Your task to perform on an android device: visit the assistant section in the google photos Image 0: 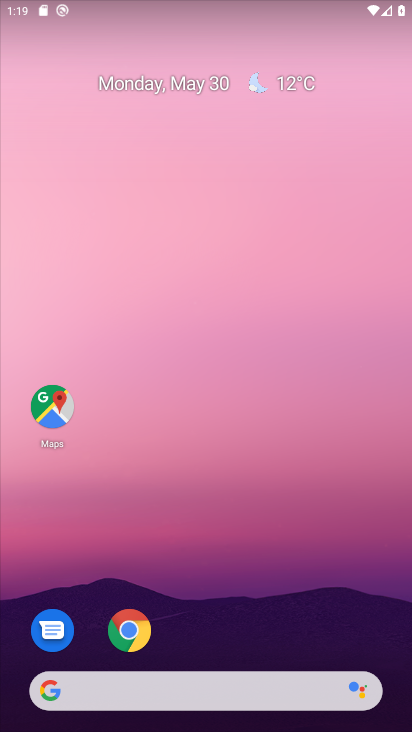
Step 0: drag from (216, 677) to (250, 88)
Your task to perform on an android device: visit the assistant section in the google photos Image 1: 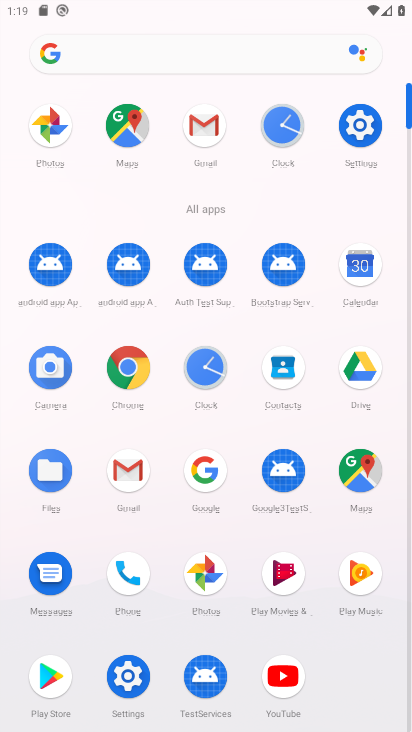
Step 1: click (193, 589)
Your task to perform on an android device: visit the assistant section in the google photos Image 2: 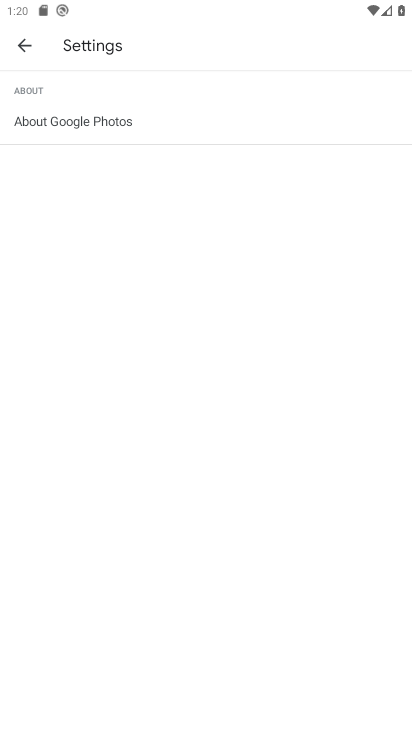
Step 2: click (22, 48)
Your task to perform on an android device: visit the assistant section in the google photos Image 3: 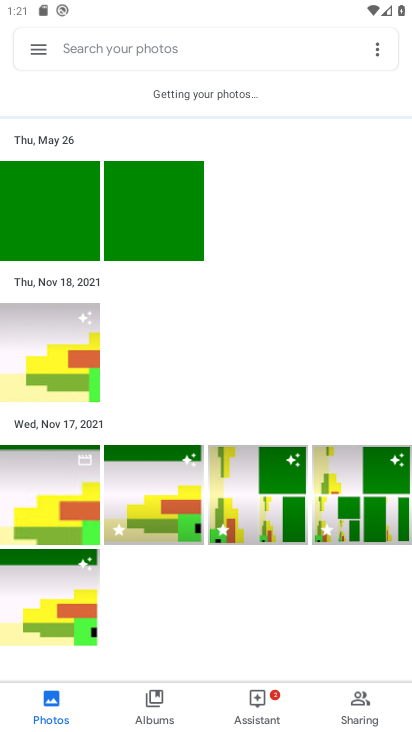
Step 3: click (264, 686)
Your task to perform on an android device: visit the assistant section in the google photos Image 4: 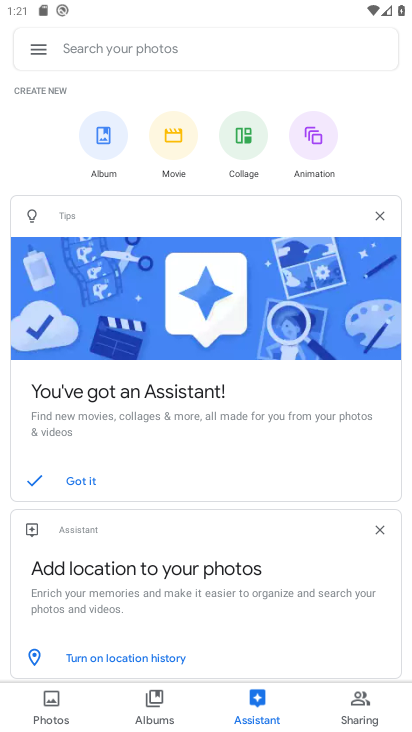
Step 4: task complete